Your task to perform on an android device: delete browsing data in the chrome app Image 0: 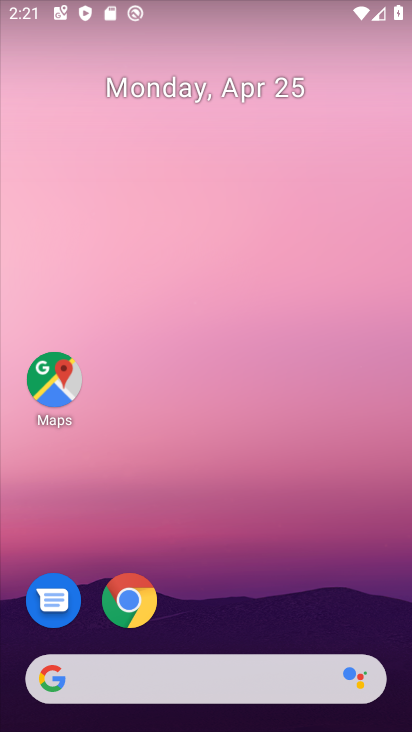
Step 0: drag from (361, 429) to (348, 191)
Your task to perform on an android device: delete browsing data in the chrome app Image 1: 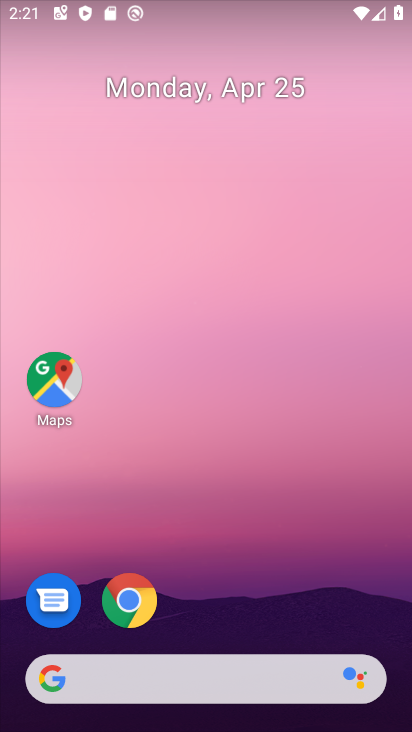
Step 1: drag from (351, 581) to (351, 147)
Your task to perform on an android device: delete browsing data in the chrome app Image 2: 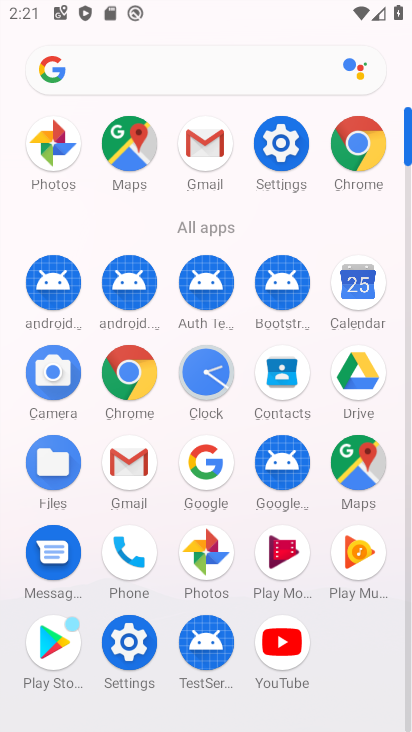
Step 2: click (354, 156)
Your task to perform on an android device: delete browsing data in the chrome app Image 3: 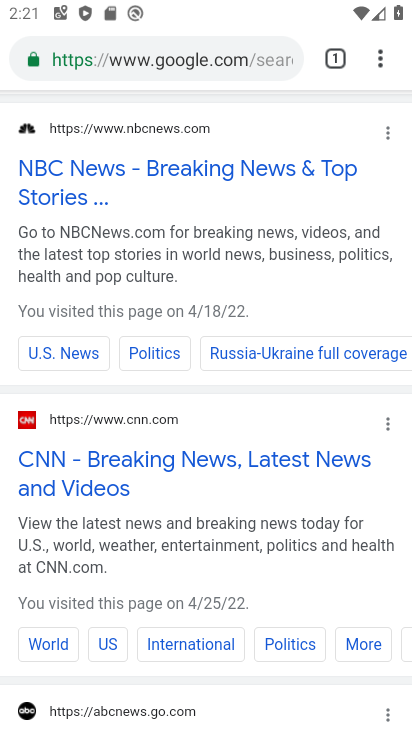
Step 3: click (206, 57)
Your task to perform on an android device: delete browsing data in the chrome app Image 4: 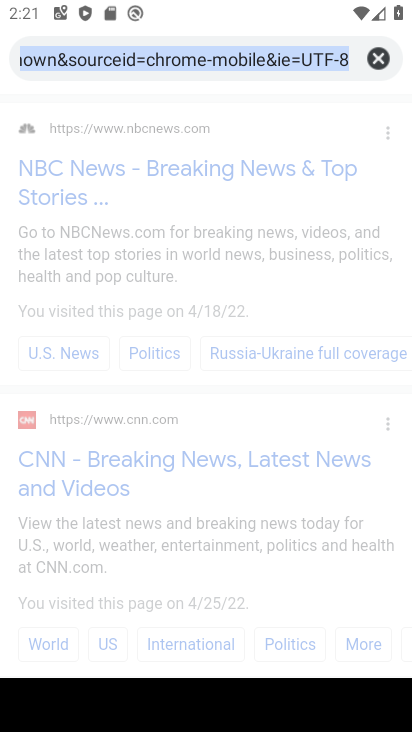
Step 4: click (373, 59)
Your task to perform on an android device: delete browsing data in the chrome app Image 5: 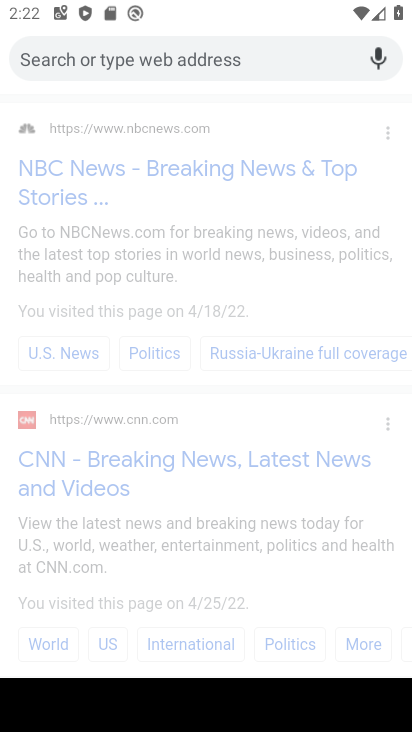
Step 5: click (266, 131)
Your task to perform on an android device: delete browsing data in the chrome app Image 6: 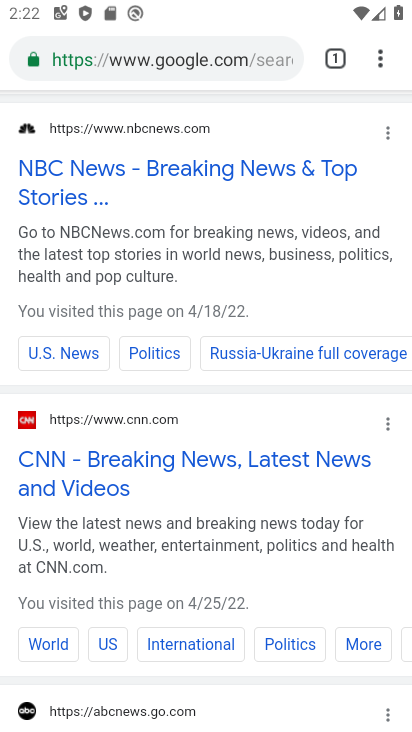
Step 6: drag from (388, 46) to (181, 329)
Your task to perform on an android device: delete browsing data in the chrome app Image 7: 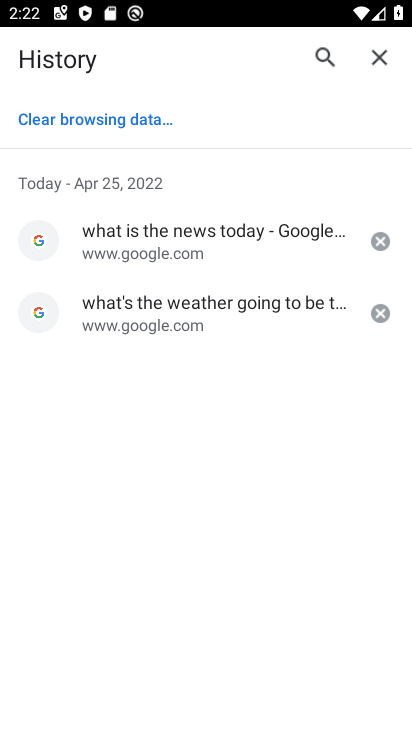
Step 7: click (106, 115)
Your task to perform on an android device: delete browsing data in the chrome app Image 8: 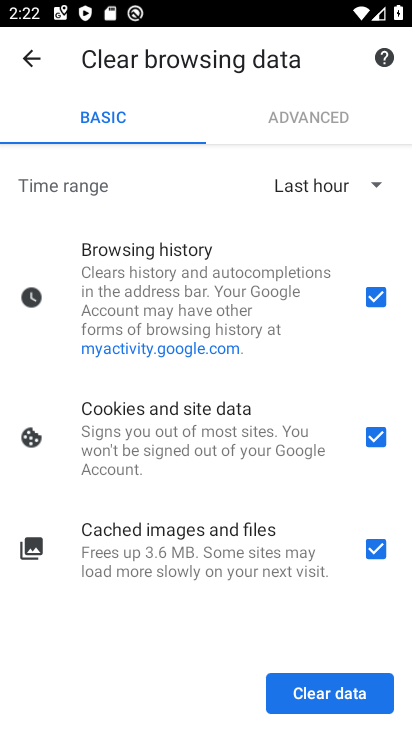
Step 8: click (311, 704)
Your task to perform on an android device: delete browsing data in the chrome app Image 9: 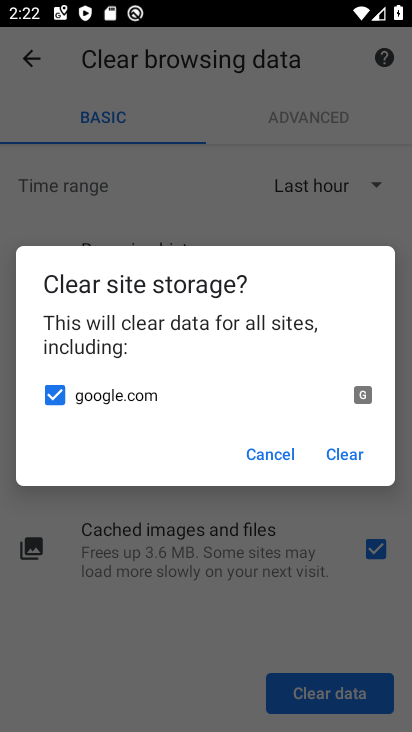
Step 9: click (343, 451)
Your task to perform on an android device: delete browsing data in the chrome app Image 10: 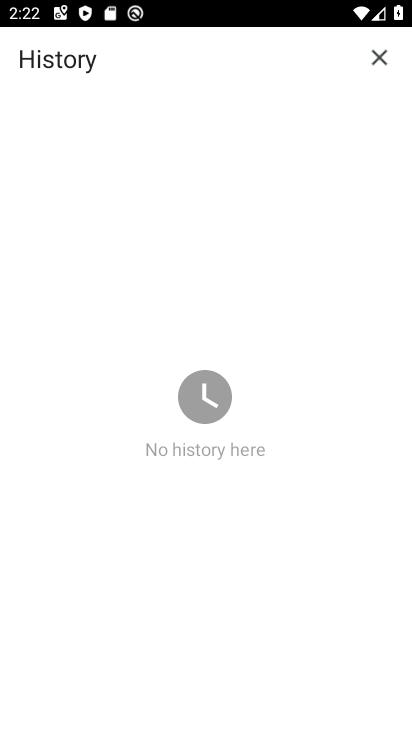
Step 10: task complete